Your task to perform on an android device: all mails in gmail Image 0: 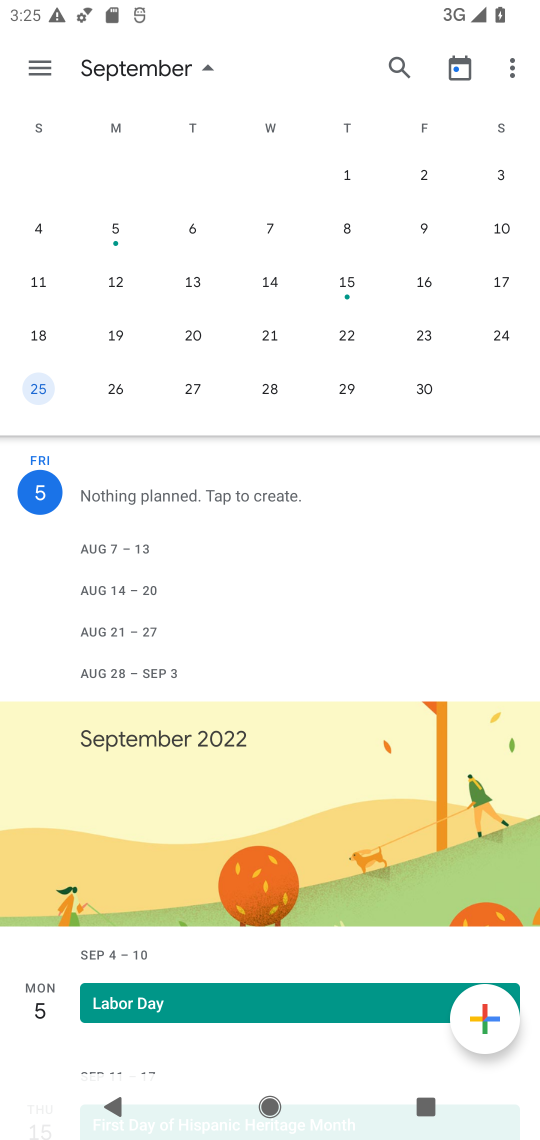
Step 0: press home button
Your task to perform on an android device: all mails in gmail Image 1: 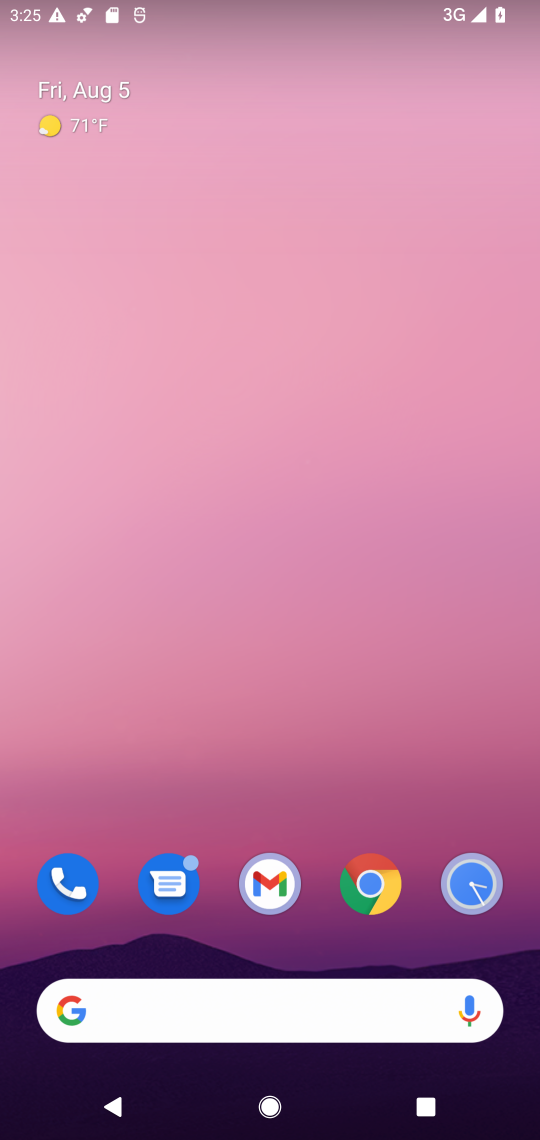
Step 1: drag from (442, 1036) to (231, 30)
Your task to perform on an android device: all mails in gmail Image 2: 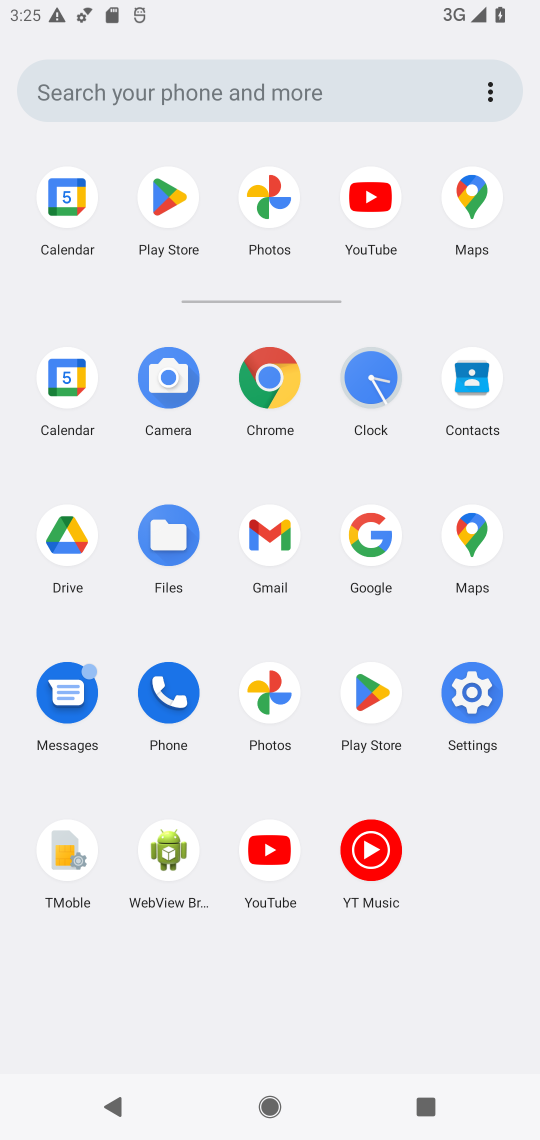
Step 2: click (278, 526)
Your task to perform on an android device: all mails in gmail Image 3: 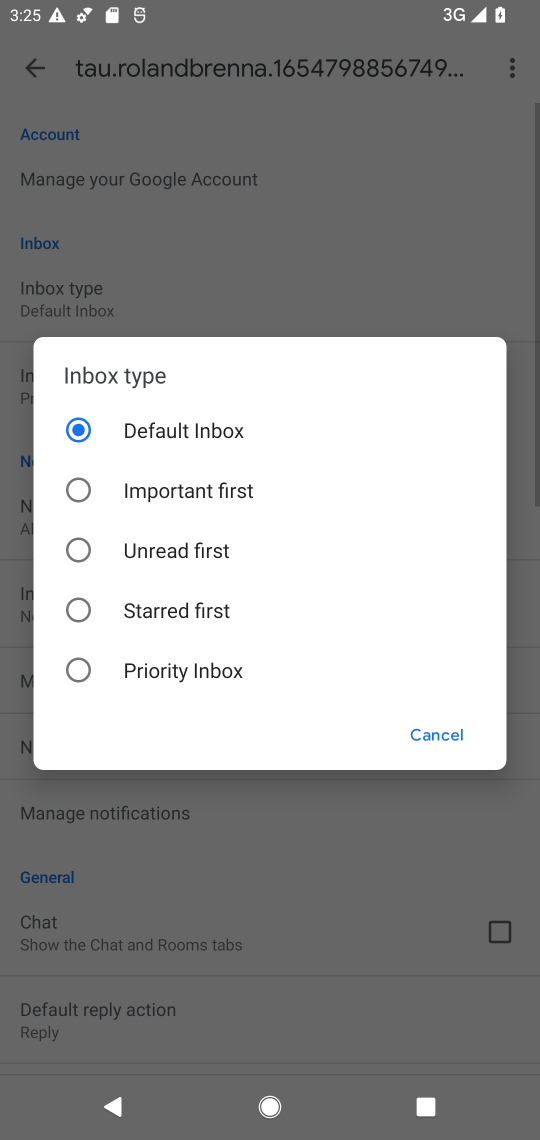
Step 3: click (451, 737)
Your task to perform on an android device: all mails in gmail Image 4: 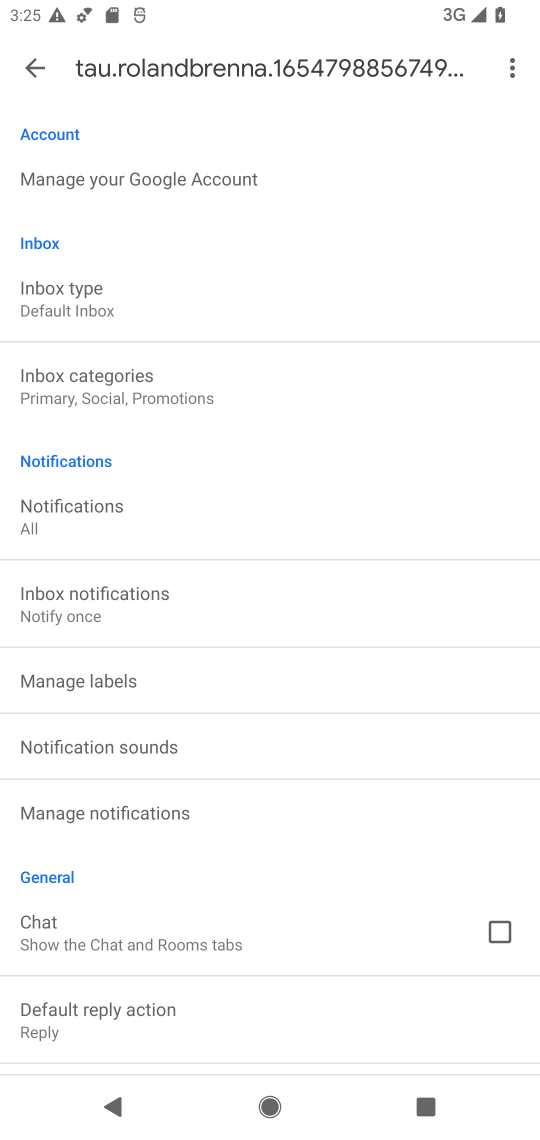
Step 4: press back button
Your task to perform on an android device: all mails in gmail Image 5: 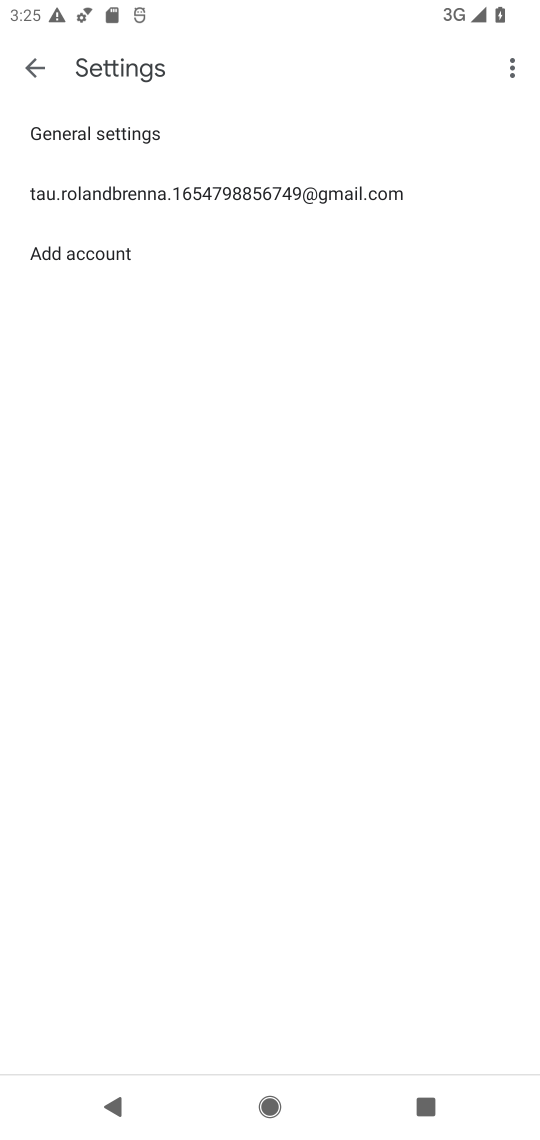
Step 5: press back button
Your task to perform on an android device: all mails in gmail Image 6: 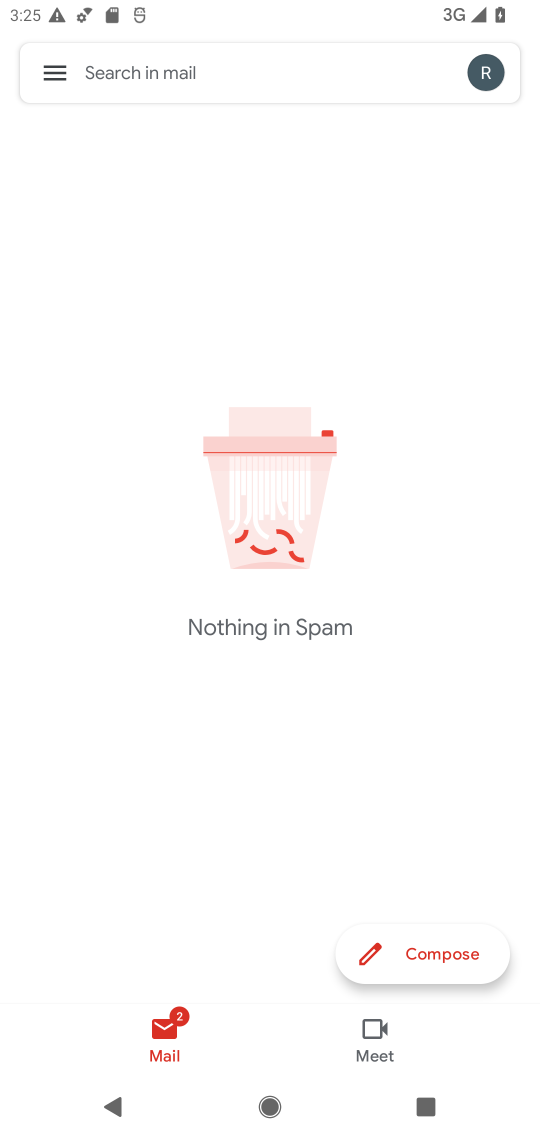
Step 6: click (60, 74)
Your task to perform on an android device: all mails in gmail Image 7: 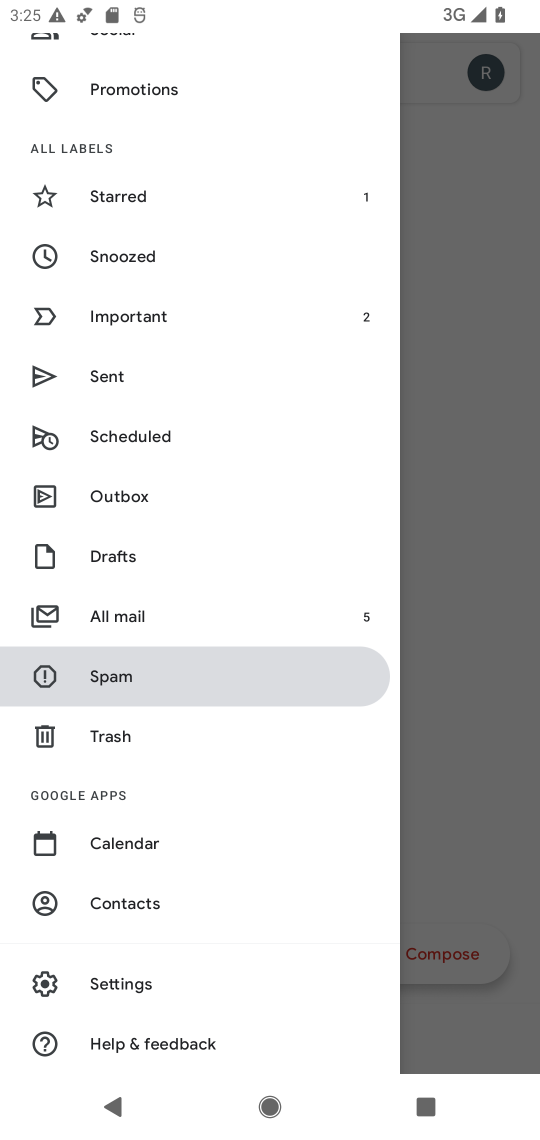
Step 7: click (167, 590)
Your task to perform on an android device: all mails in gmail Image 8: 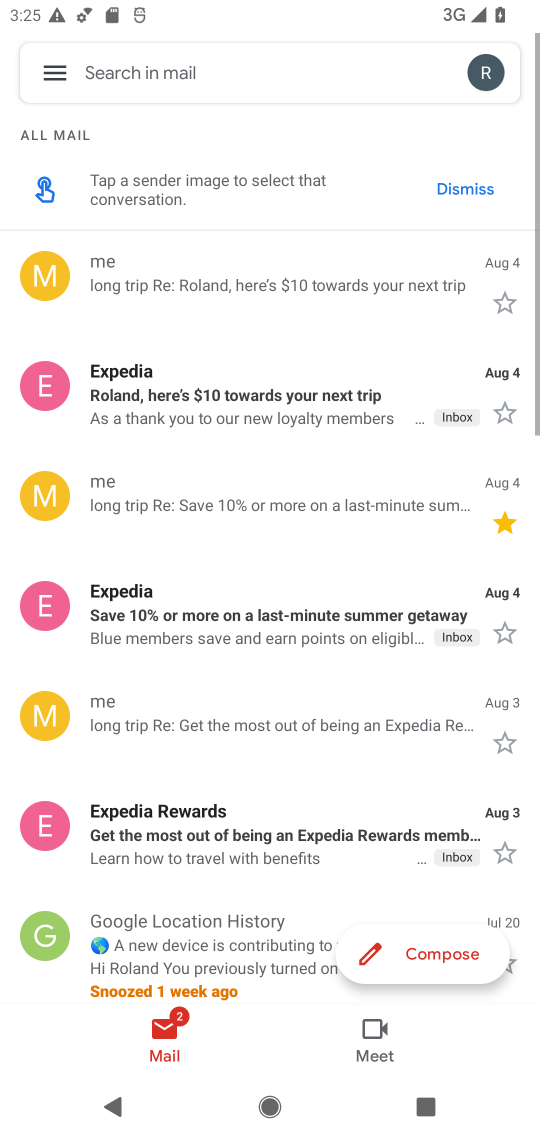
Step 8: task complete